Your task to perform on an android device: allow notifications from all sites in the chrome app Image 0: 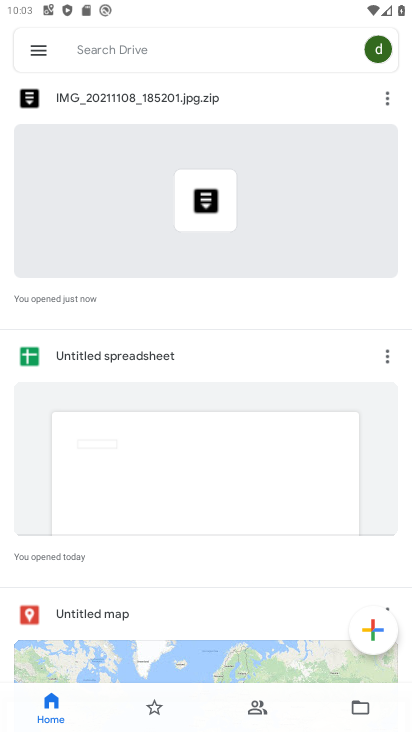
Step 0: press home button
Your task to perform on an android device: allow notifications from all sites in the chrome app Image 1: 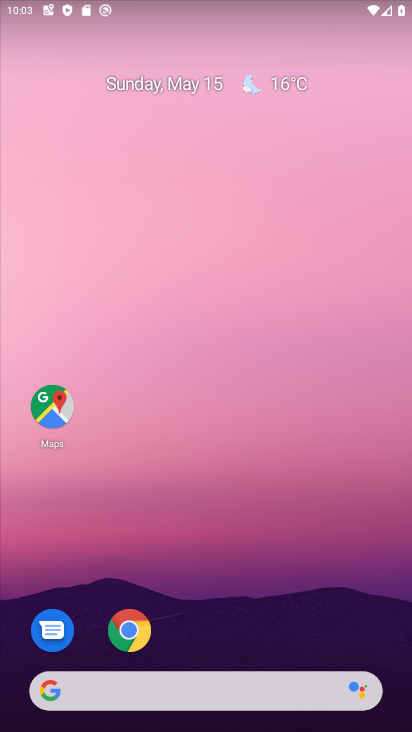
Step 1: click (138, 624)
Your task to perform on an android device: allow notifications from all sites in the chrome app Image 2: 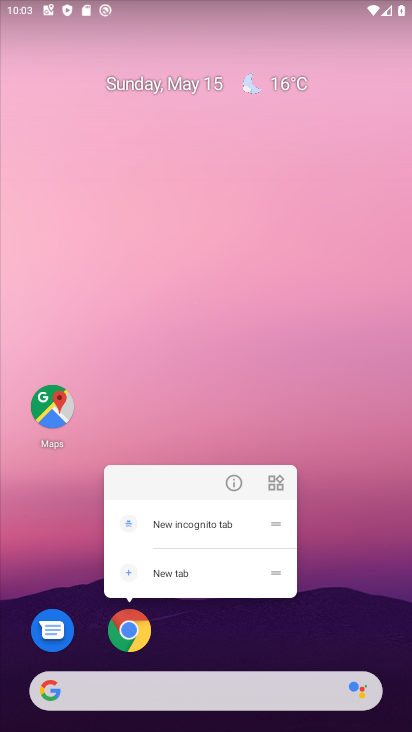
Step 2: click (127, 632)
Your task to perform on an android device: allow notifications from all sites in the chrome app Image 3: 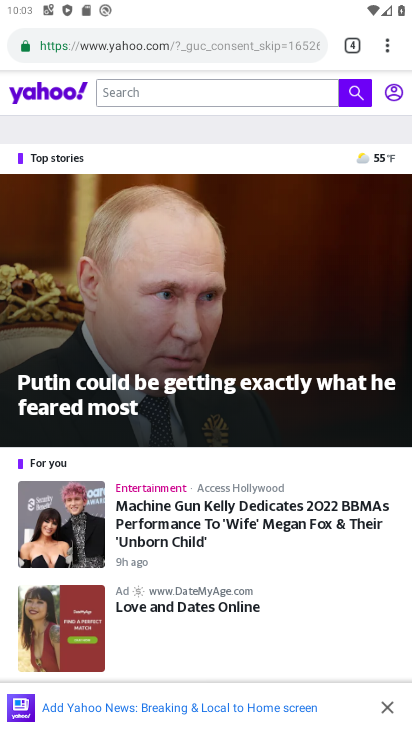
Step 3: drag from (382, 42) to (242, 501)
Your task to perform on an android device: allow notifications from all sites in the chrome app Image 4: 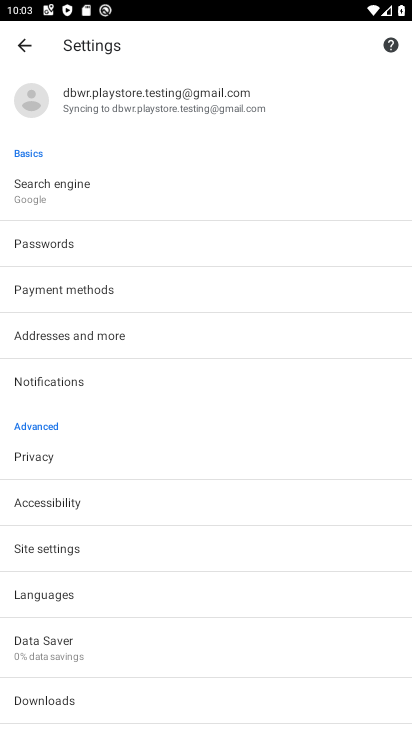
Step 4: click (85, 557)
Your task to perform on an android device: allow notifications from all sites in the chrome app Image 5: 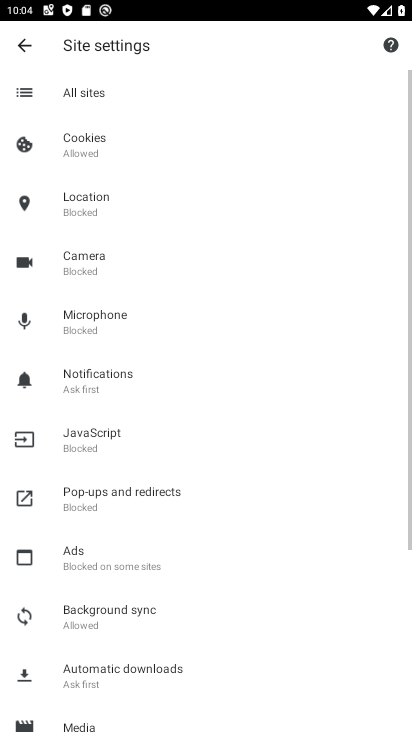
Step 5: click (101, 94)
Your task to perform on an android device: allow notifications from all sites in the chrome app Image 6: 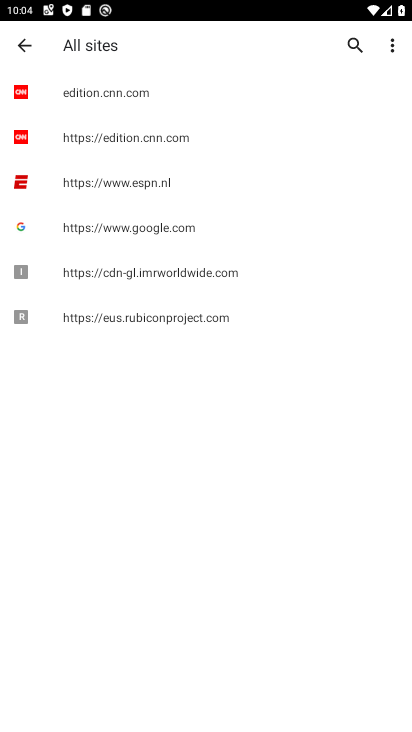
Step 6: click (143, 234)
Your task to perform on an android device: allow notifications from all sites in the chrome app Image 7: 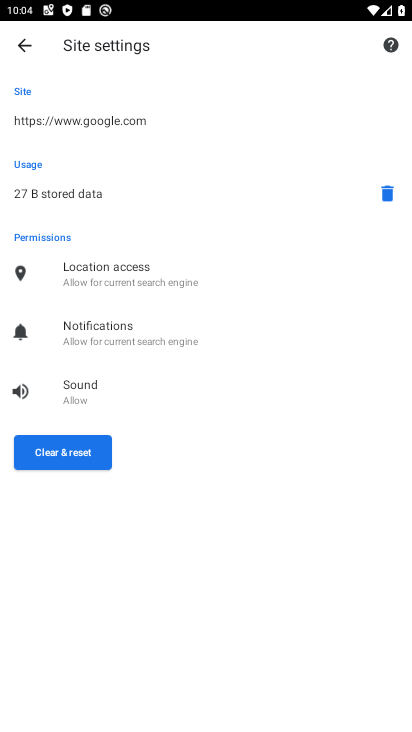
Step 7: click (150, 326)
Your task to perform on an android device: allow notifications from all sites in the chrome app Image 8: 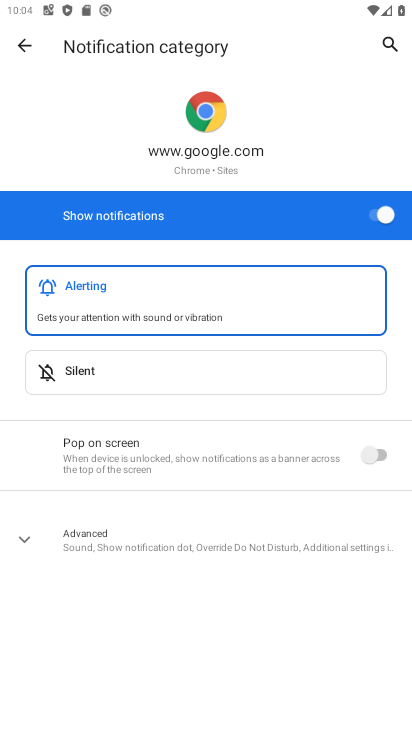
Step 8: task complete